Your task to perform on an android device: Open Google Chrome and click the shortcut for Amazon.com Image 0: 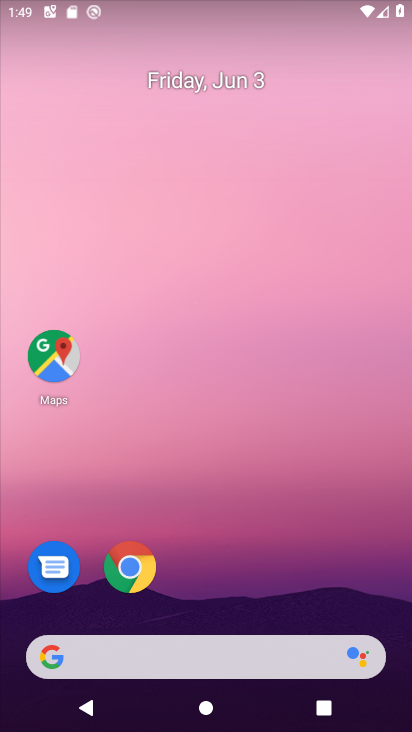
Step 0: click (114, 561)
Your task to perform on an android device: Open Google Chrome and click the shortcut for Amazon.com Image 1: 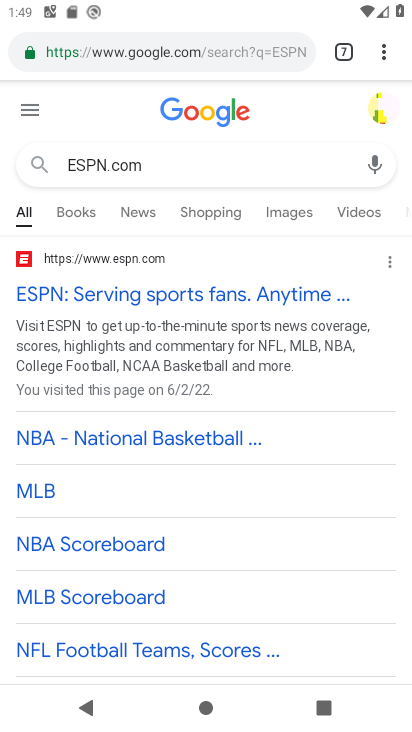
Step 1: click (373, 48)
Your task to perform on an android device: Open Google Chrome and click the shortcut for Amazon.com Image 2: 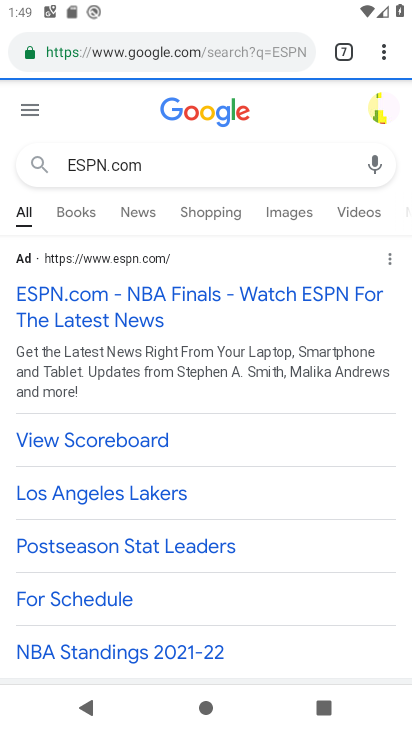
Step 2: click (385, 56)
Your task to perform on an android device: Open Google Chrome and click the shortcut for Amazon.com Image 3: 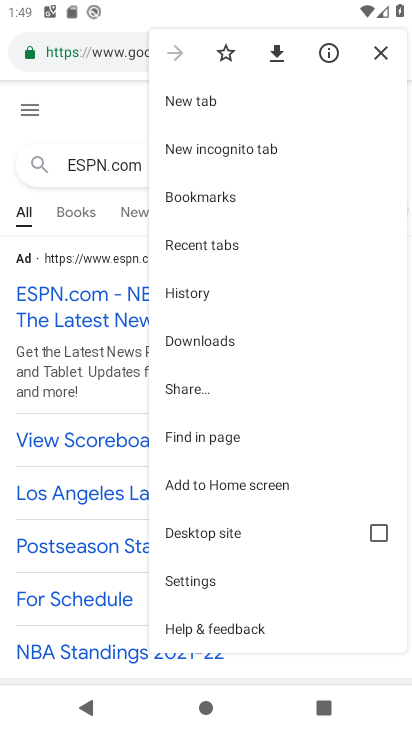
Step 3: click (229, 95)
Your task to perform on an android device: Open Google Chrome and click the shortcut for Amazon.com Image 4: 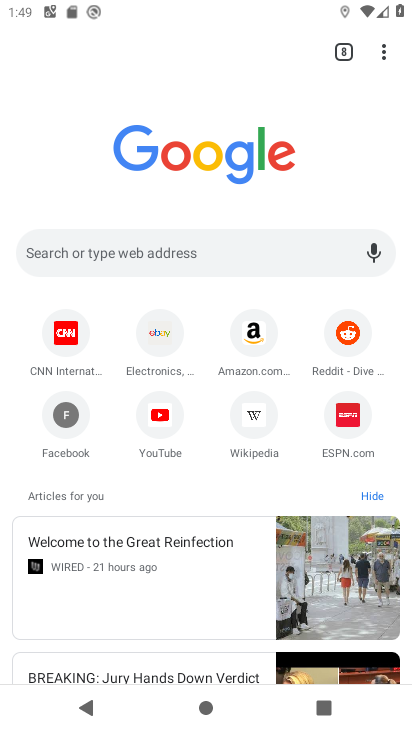
Step 4: click (240, 327)
Your task to perform on an android device: Open Google Chrome and click the shortcut for Amazon.com Image 5: 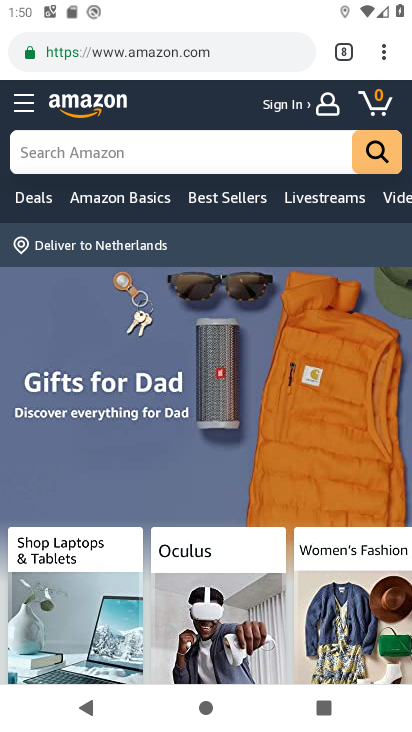
Step 5: task complete